Your task to perform on an android device: Search for sushi restaurants on Maps Image 0: 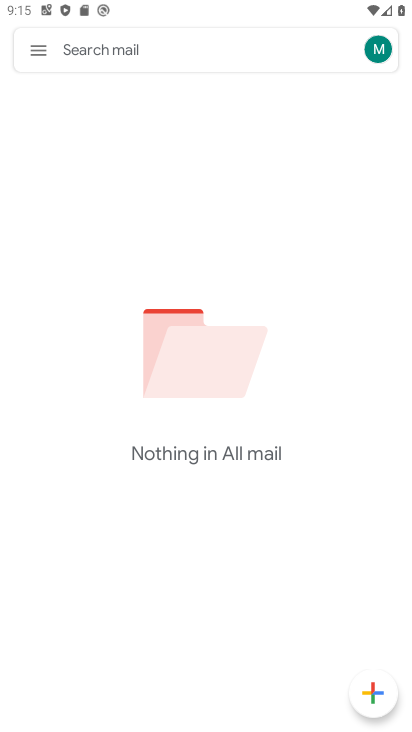
Step 0: press home button
Your task to perform on an android device: Search for sushi restaurants on Maps Image 1: 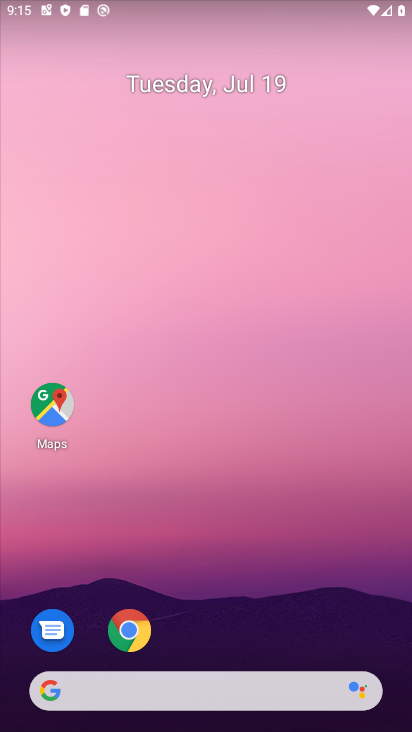
Step 1: click (52, 409)
Your task to perform on an android device: Search for sushi restaurants on Maps Image 2: 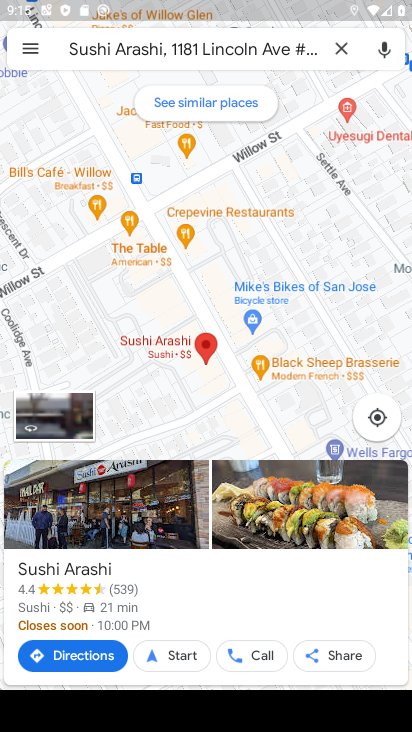
Step 2: click (332, 47)
Your task to perform on an android device: Search for sushi restaurants on Maps Image 3: 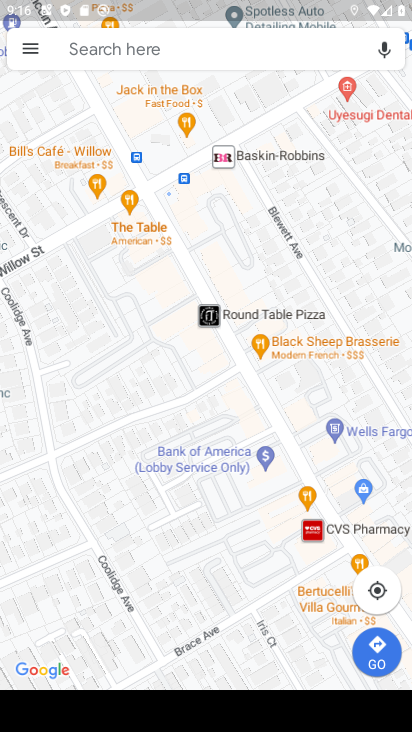
Step 3: click (127, 51)
Your task to perform on an android device: Search for sushi restaurants on Maps Image 4: 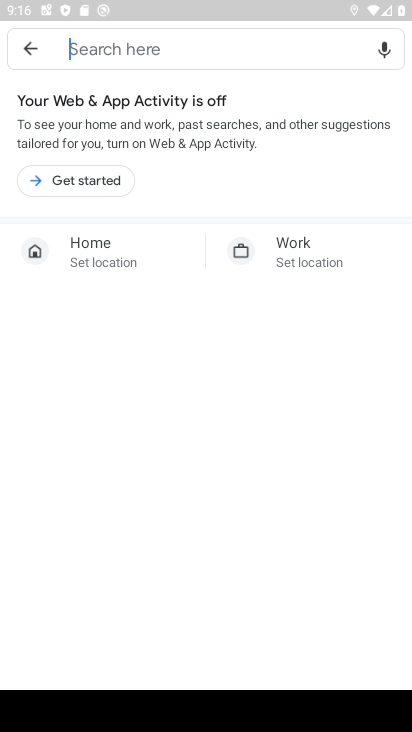
Step 4: click (80, 174)
Your task to perform on an android device: Search for sushi restaurants on Maps Image 5: 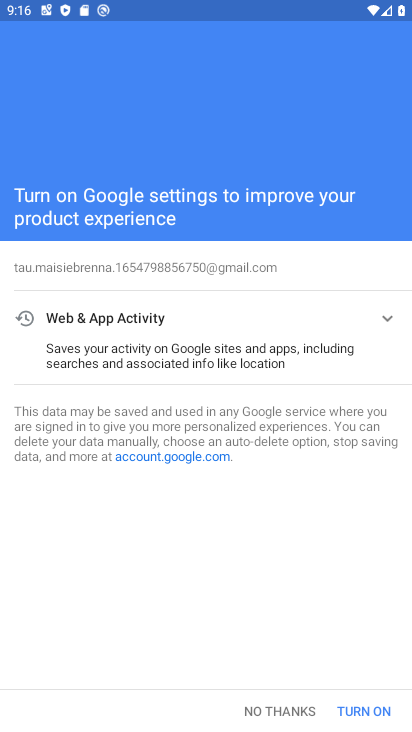
Step 5: click (256, 707)
Your task to perform on an android device: Search for sushi restaurants on Maps Image 6: 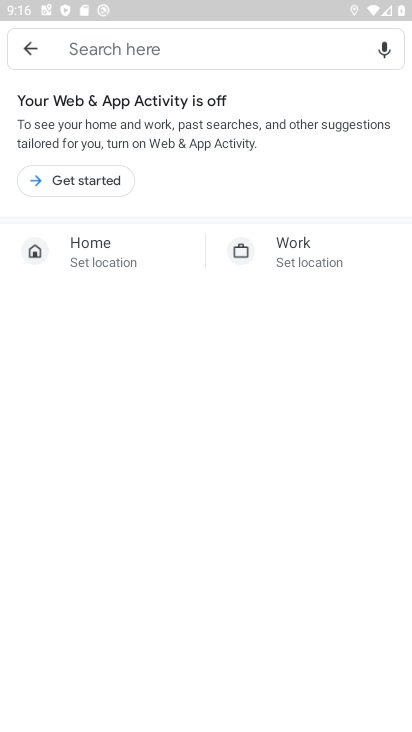
Step 6: click (83, 184)
Your task to perform on an android device: Search for sushi restaurants on Maps Image 7: 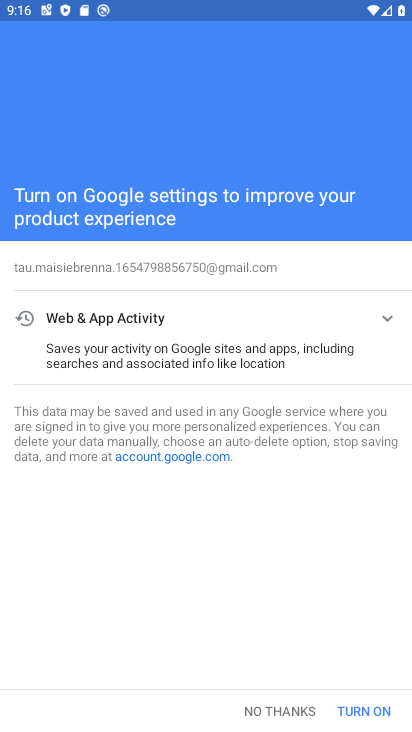
Step 7: click (357, 711)
Your task to perform on an android device: Search for sushi restaurants on Maps Image 8: 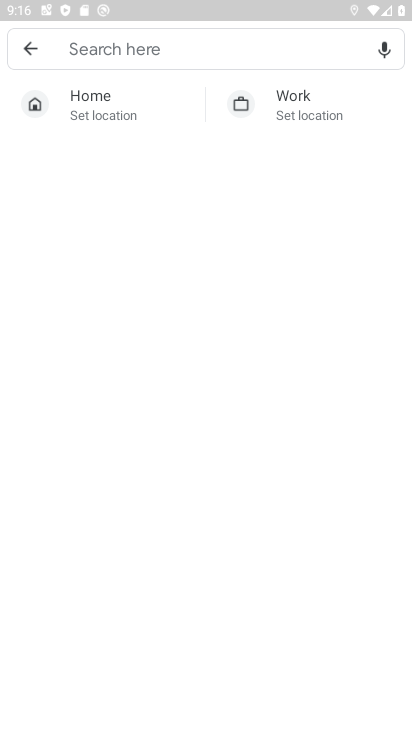
Step 8: click (156, 66)
Your task to perform on an android device: Search for sushi restaurants on Maps Image 9: 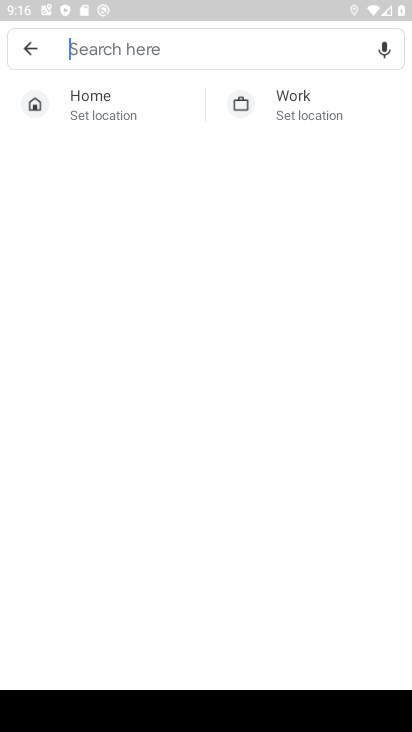
Step 9: type "sushi restaurent"
Your task to perform on an android device: Search for sushi restaurants on Maps Image 10: 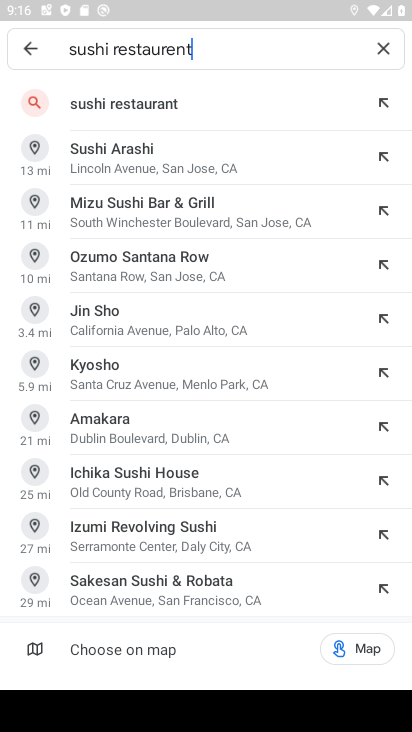
Step 10: click (156, 116)
Your task to perform on an android device: Search for sushi restaurants on Maps Image 11: 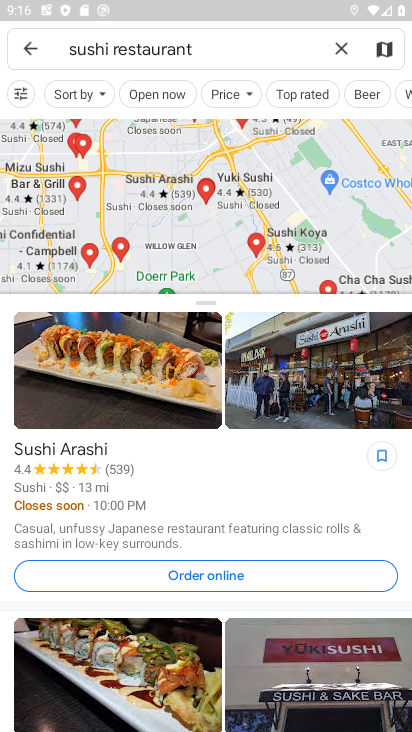
Step 11: task complete